Your task to perform on an android device: turn on data saver in the chrome app Image 0: 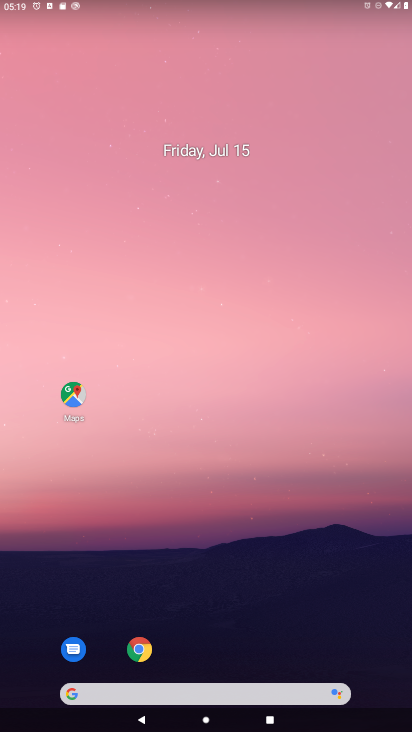
Step 0: click (138, 653)
Your task to perform on an android device: turn on data saver in the chrome app Image 1: 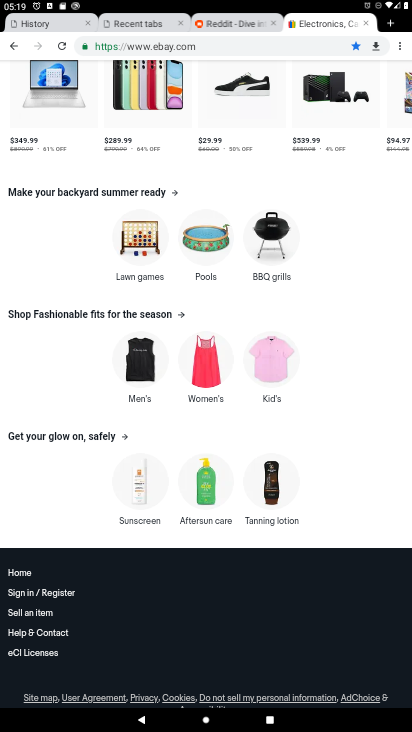
Step 1: click (399, 49)
Your task to perform on an android device: turn on data saver in the chrome app Image 2: 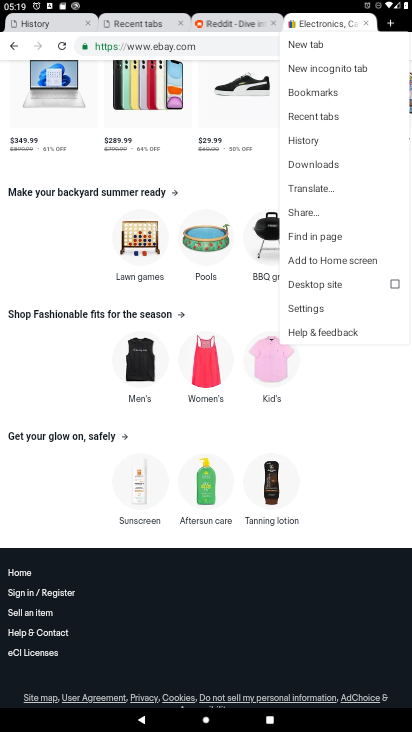
Step 2: click (308, 305)
Your task to perform on an android device: turn on data saver in the chrome app Image 3: 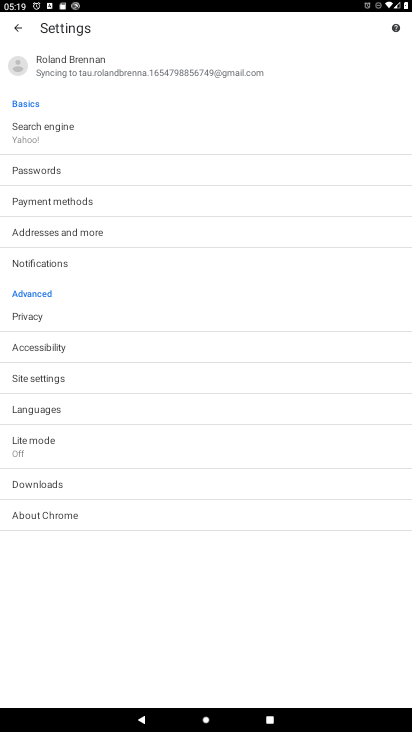
Step 3: click (29, 444)
Your task to perform on an android device: turn on data saver in the chrome app Image 4: 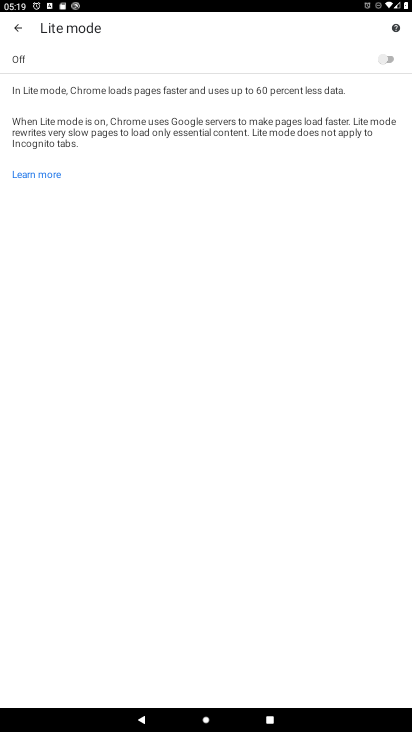
Step 4: click (393, 58)
Your task to perform on an android device: turn on data saver in the chrome app Image 5: 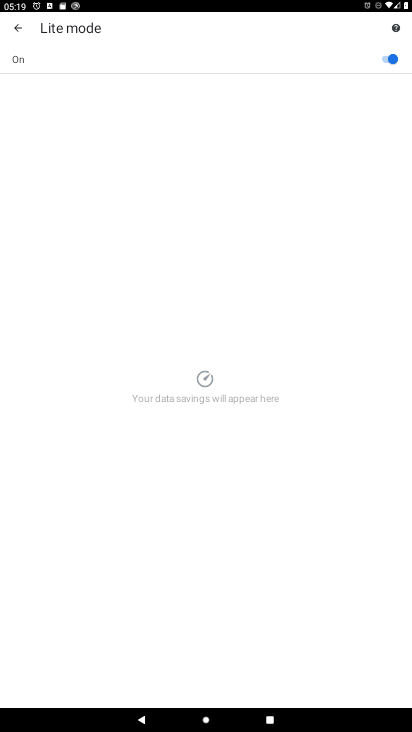
Step 5: task complete